Your task to perform on an android device: Open Chrome and go to the settings page Image 0: 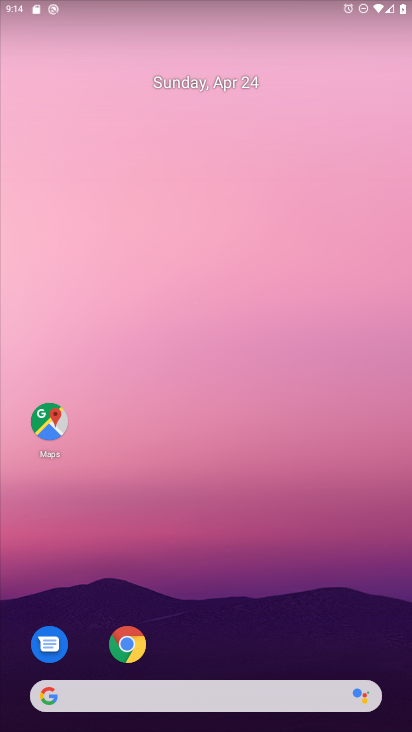
Step 0: click (123, 642)
Your task to perform on an android device: Open Chrome and go to the settings page Image 1: 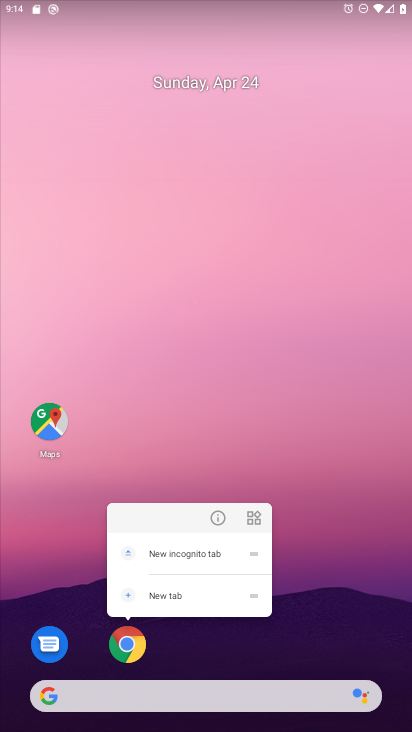
Step 1: click (127, 638)
Your task to perform on an android device: Open Chrome and go to the settings page Image 2: 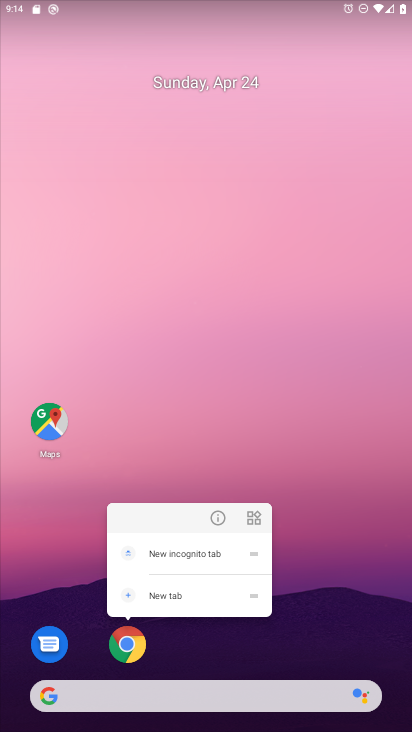
Step 2: click (123, 656)
Your task to perform on an android device: Open Chrome and go to the settings page Image 3: 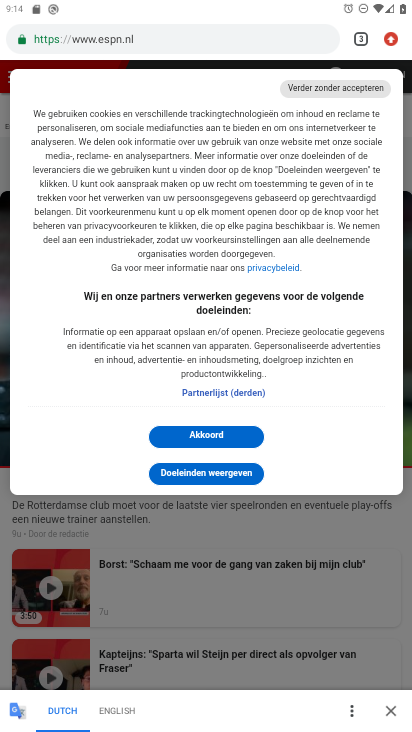
Step 3: click (393, 40)
Your task to perform on an android device: Open Chrome and go to the settings page Image 4: 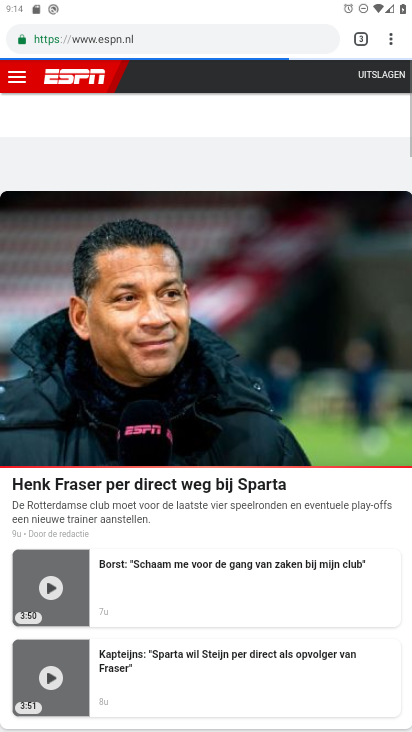
Step 4: click (390, 39)
Your task to perform on an android device: Open Chrome and go to the settings page Image 5: 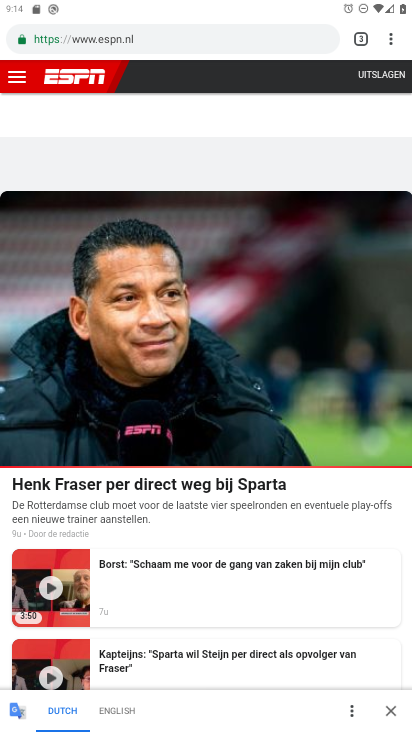
Step 5: click (390, 39)
Your task to perform on an android device: Open Chrome and go to the settings page Image 6: 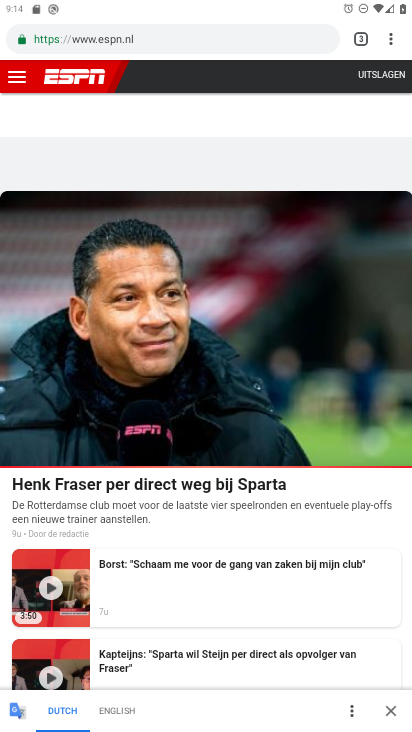
Step 6: task complete